Your task to perform on an android device: set the stopwatch Image 0: 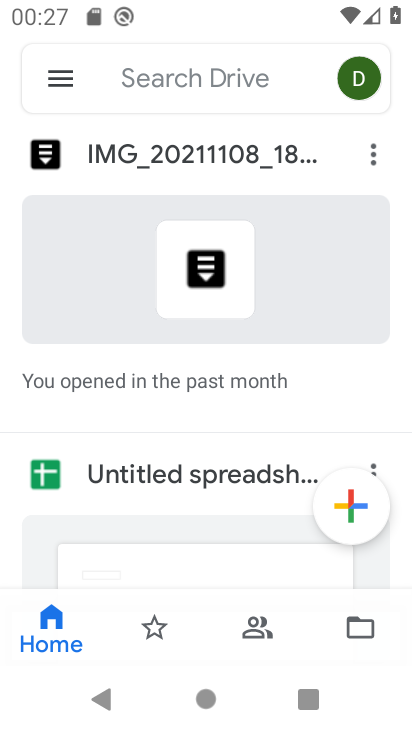
Step 0: press home button
Your task to perform on an android device: set the stopwatch Image 1: 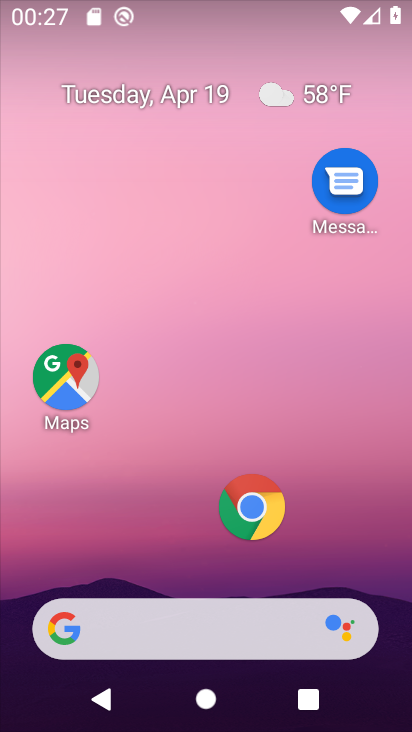
Step 1: drag from (156, 563) to (265, 1)
Your task to perform on an android device: set the stopwatch Image 2: 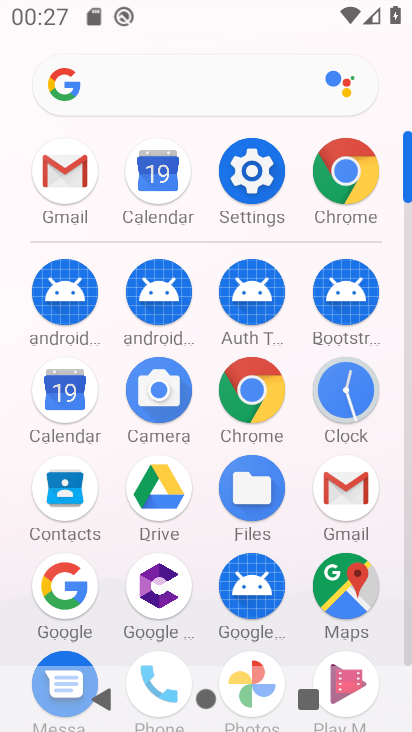
Step 2: click (346, 396)
Your task to perform on an android device: set the stopwatch Image 3: 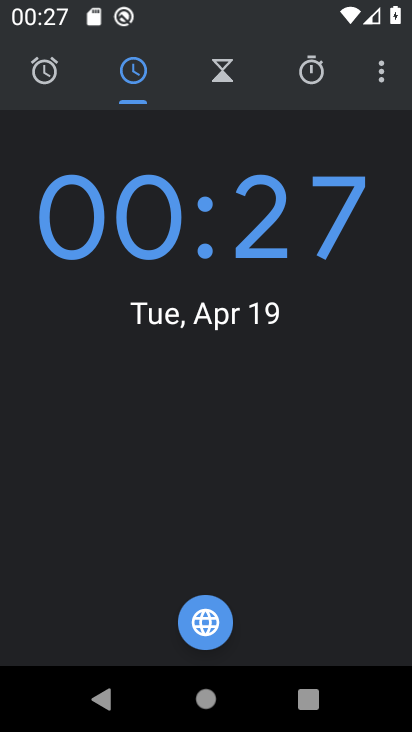
Step 3: click (305, 73)
Your task to perform on an android device: set the stopwatch Image 4: 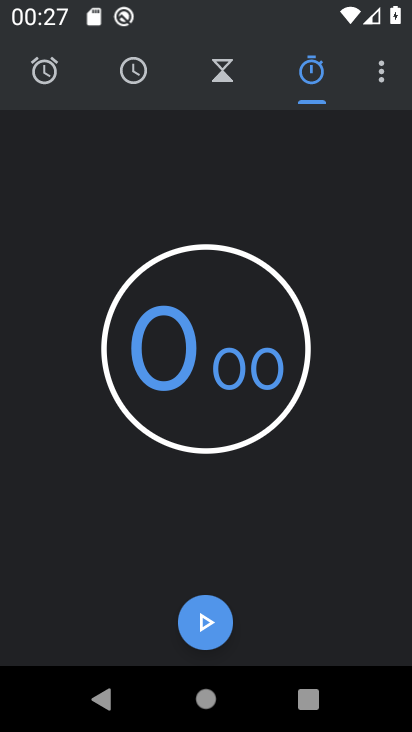
Step 4: click (195, 594)
Your task to perform on an android device: set the stopwatch Image 5: 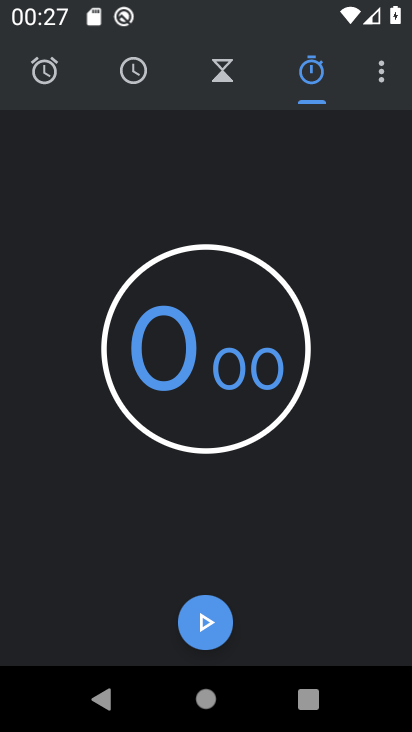
Step 5: click (199, 611)
Your task to perform on an android device: set the stopwatch Image 6: 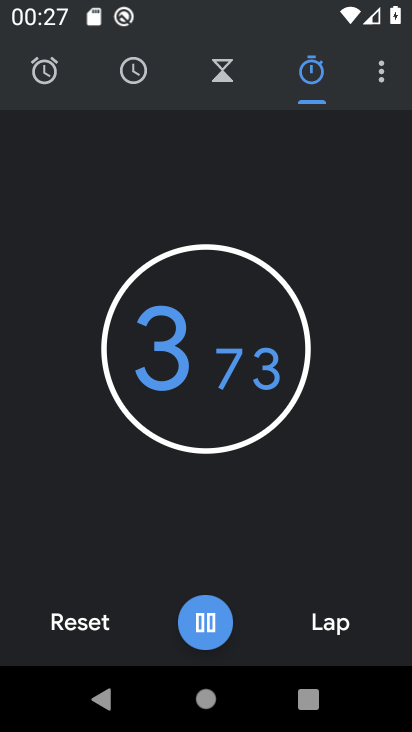
Step 6: task complete